Your task to perform on an android device: Check the news Image 0: 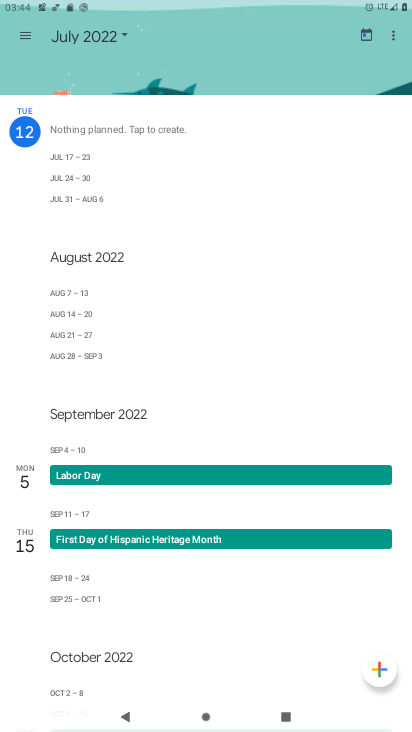
Step 0: press home button
Your task to perform on an android device: Check the news Image 1: 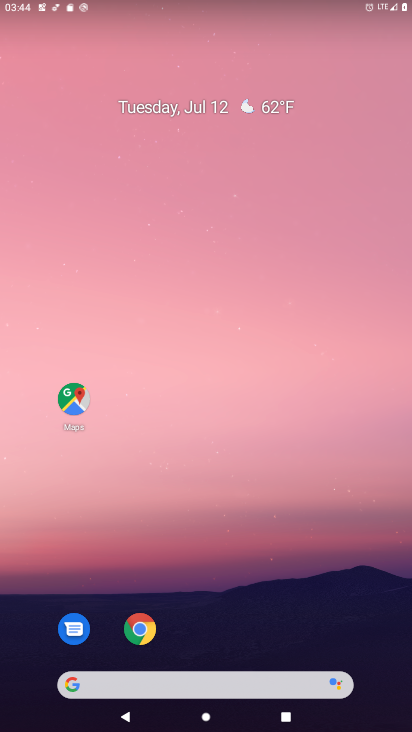
Step 1: click (201, 689)
Your task to perform on an android device: Check the news Image 2: 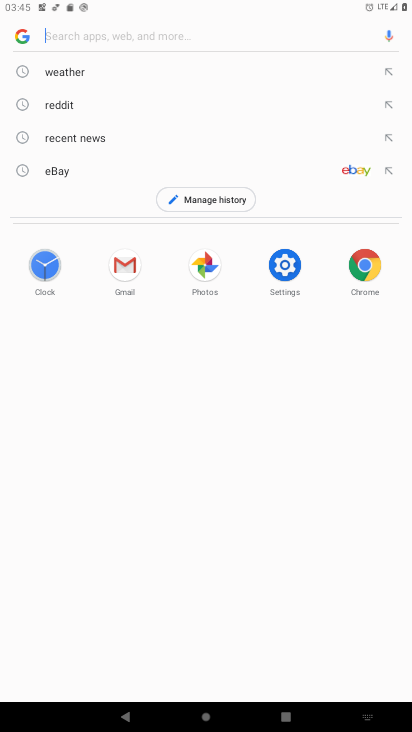
Step 2: click (83, 134)
Your task to perform on an android device: Check the news Image 3: 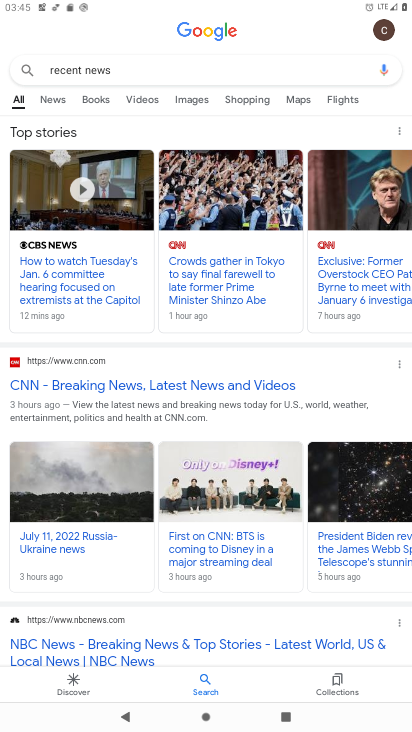
Step 3: click (52, 98)
Your task to perform on an android device: Check the news Image 4: 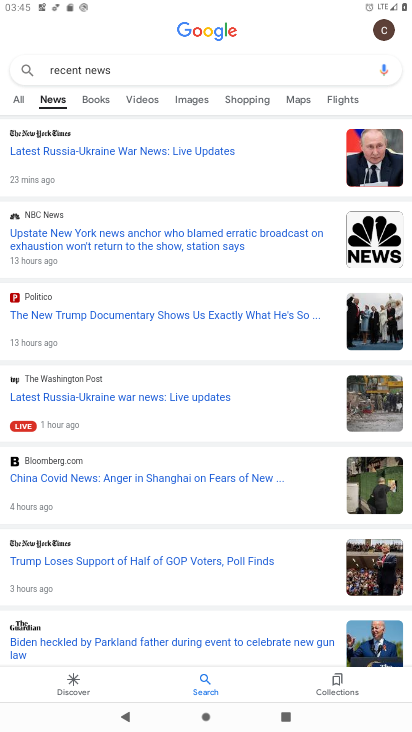
Step 4: task complete